Your task to perform on an android device: open app "Instagram" (install if not already installed) and go to login screen Image 0: 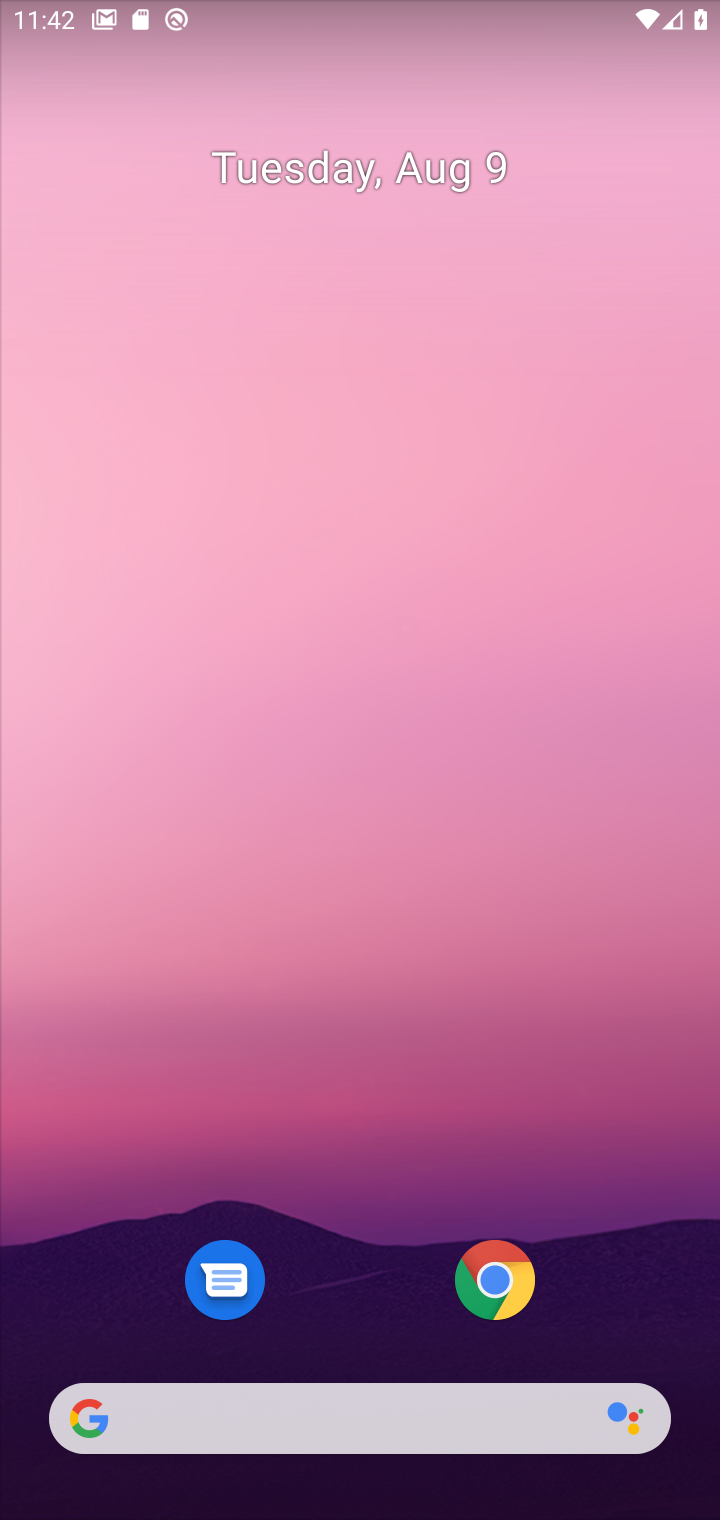
Step 0: drag from (354, 1197) to (488, 39)
Your task to perform on an android device: open app "Instagram" (install if not already installed) and go to login screen Image 1: 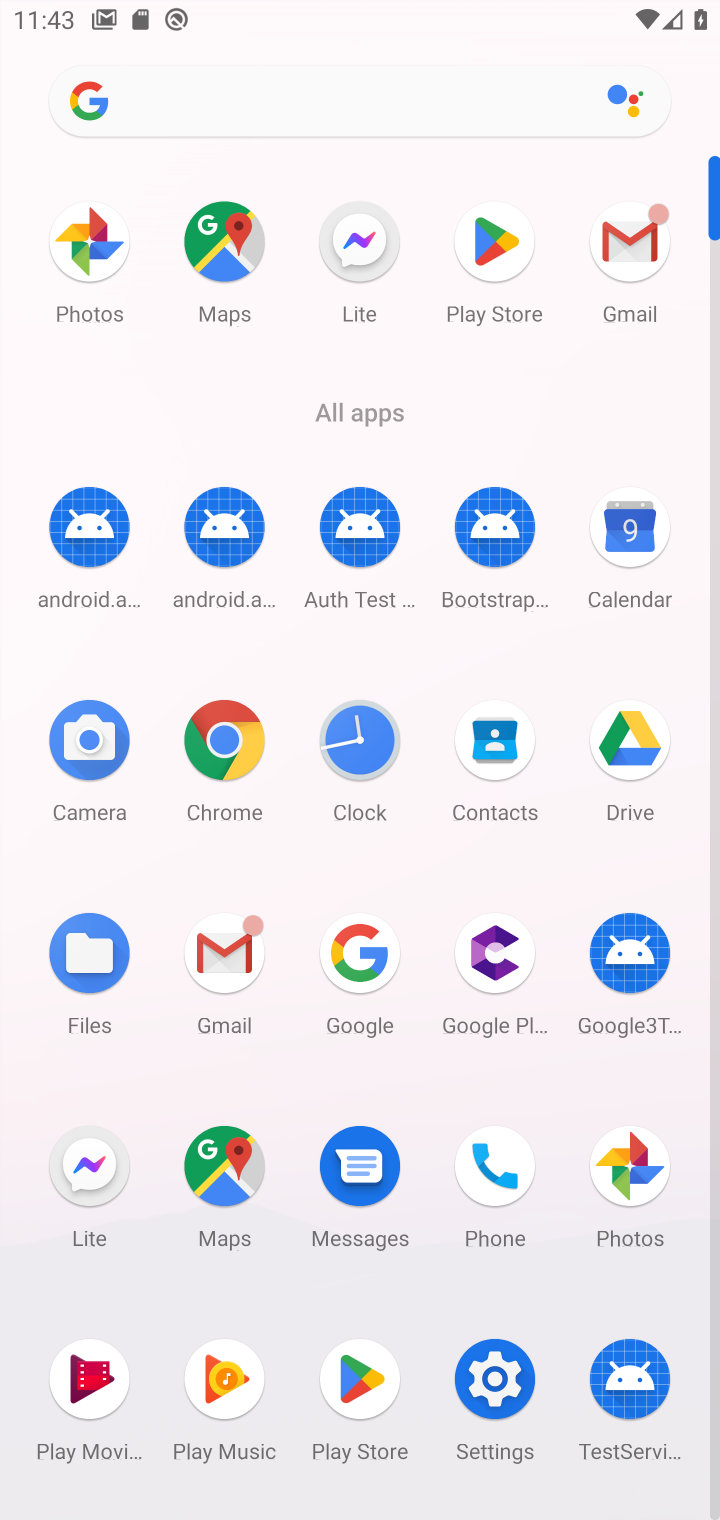
Step 1: click (500, 245)
Your task to perform on an android device: open app "Instagram" (install if not already installed) and go to login screen Image 2: 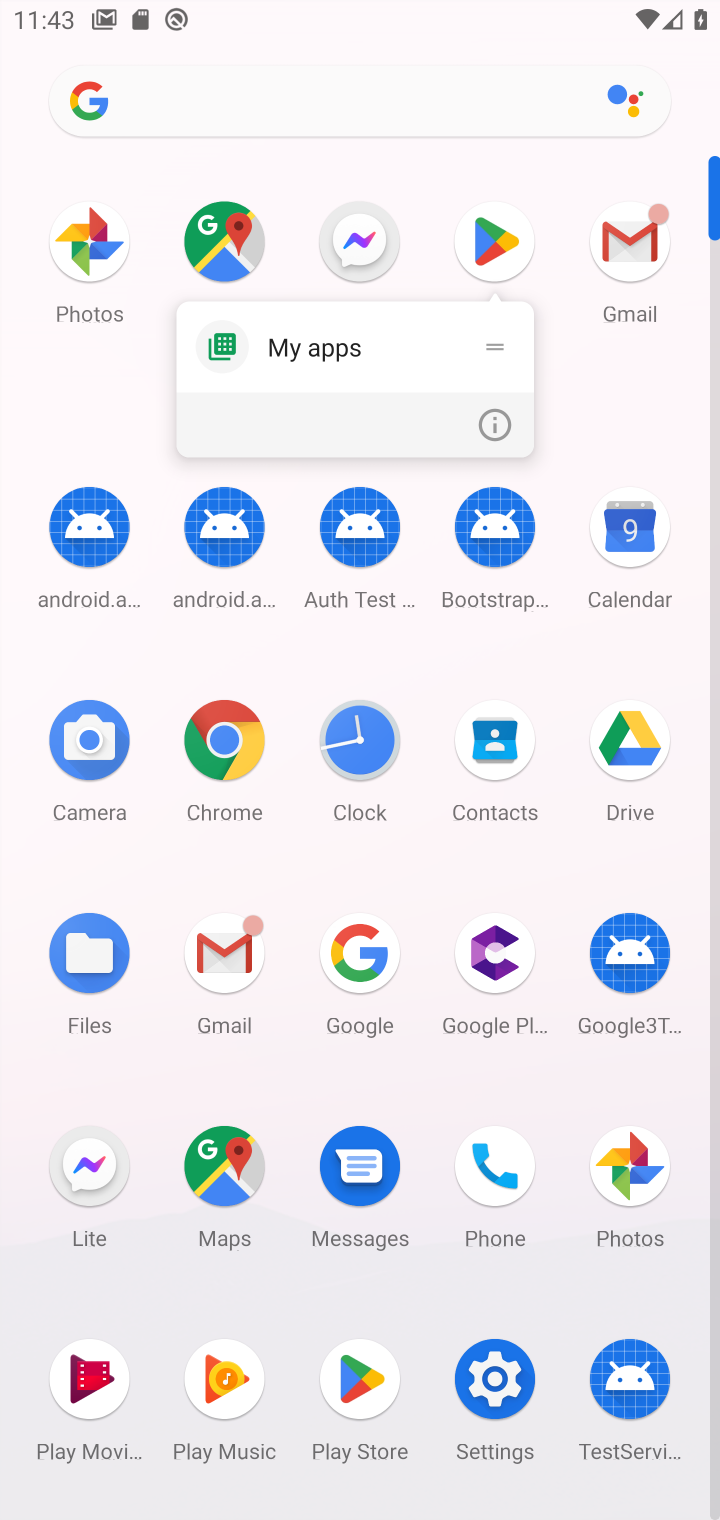
Step 2: click (493, 234)
Your task to perform on an android device: open app "Instagram" (install if not already installed) and go to login screen Image 3: 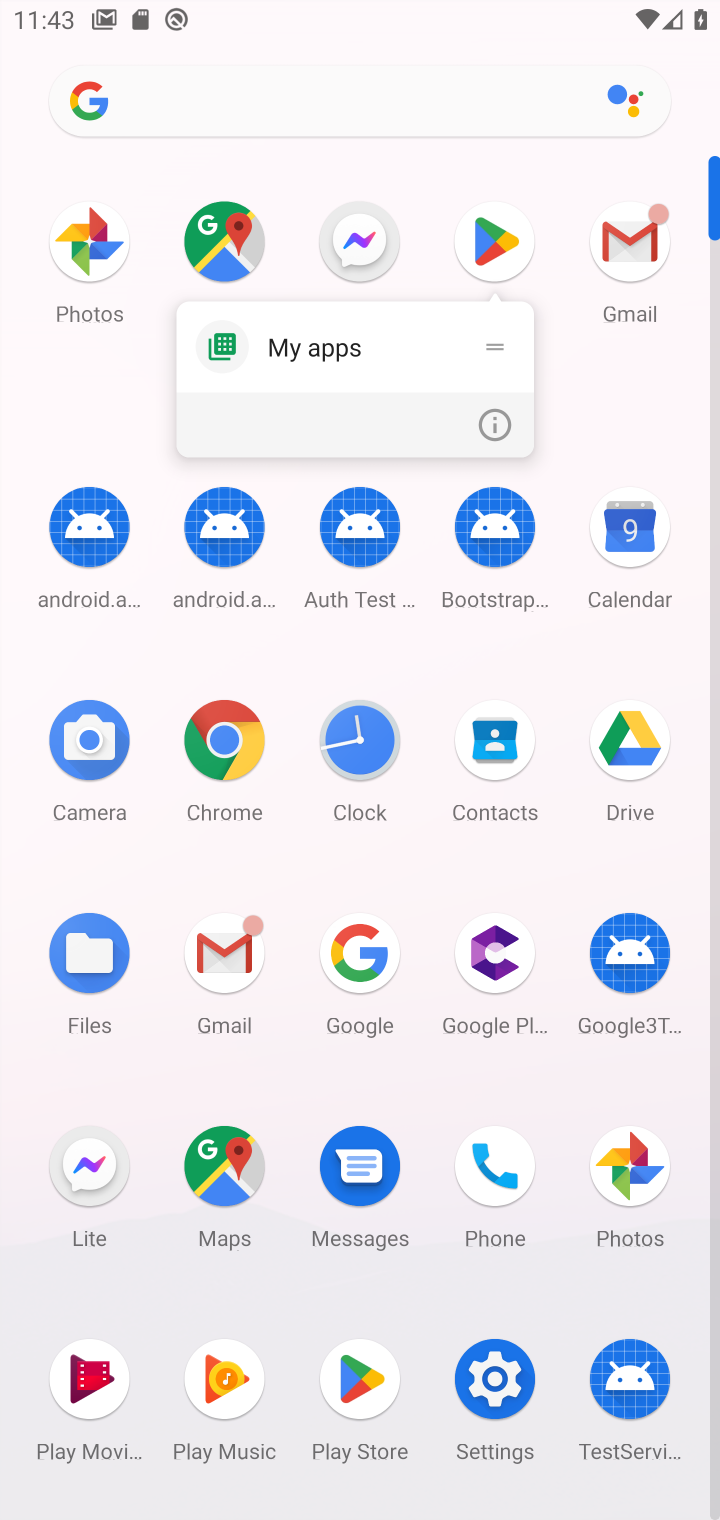
Step 3: click (493, 234)
Your task to perform on an android device: open app "Instagram" (install if not already installed) and go to login screen Image 4: 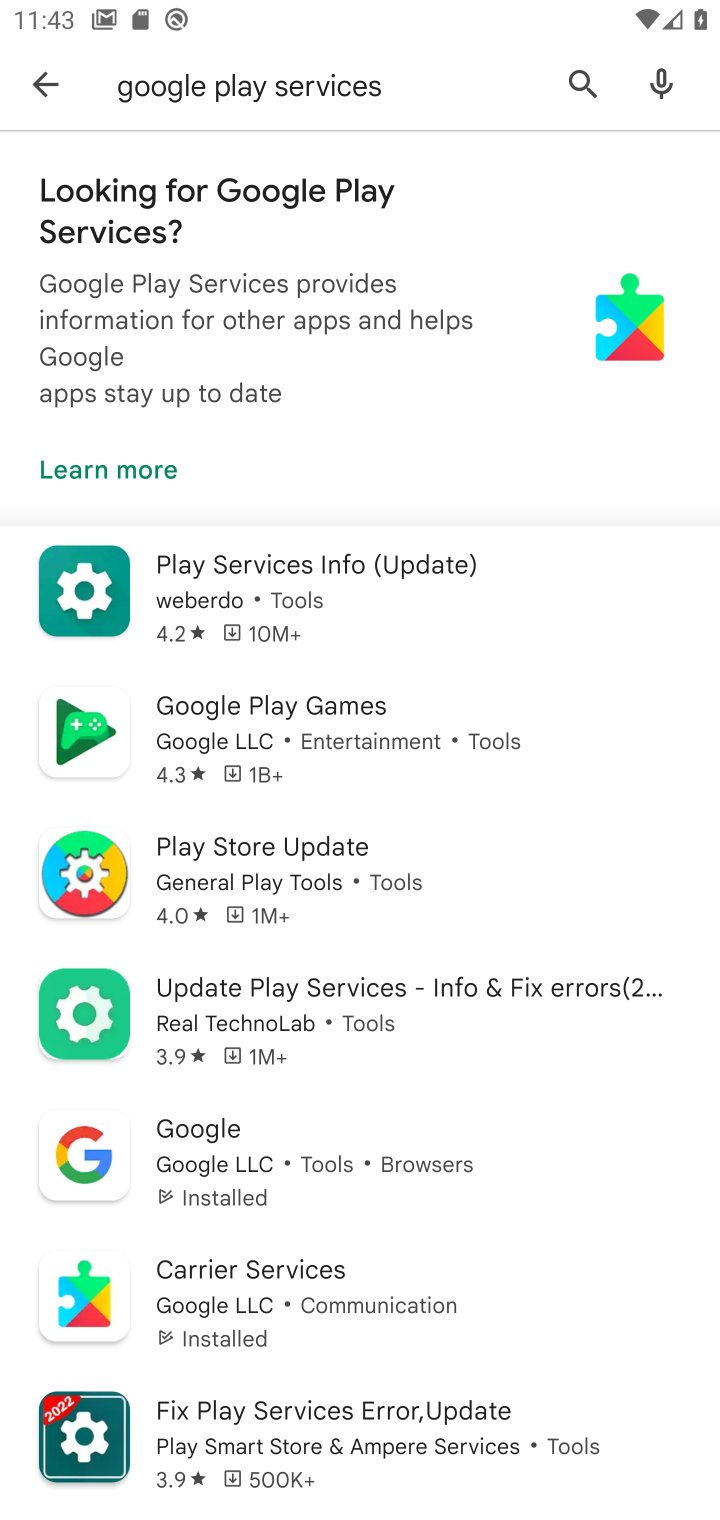
Step 4: click (564, 81)
Your task to perform on an android device: open app "Instagram" (install if not already installed) and go to login screen Image 5: 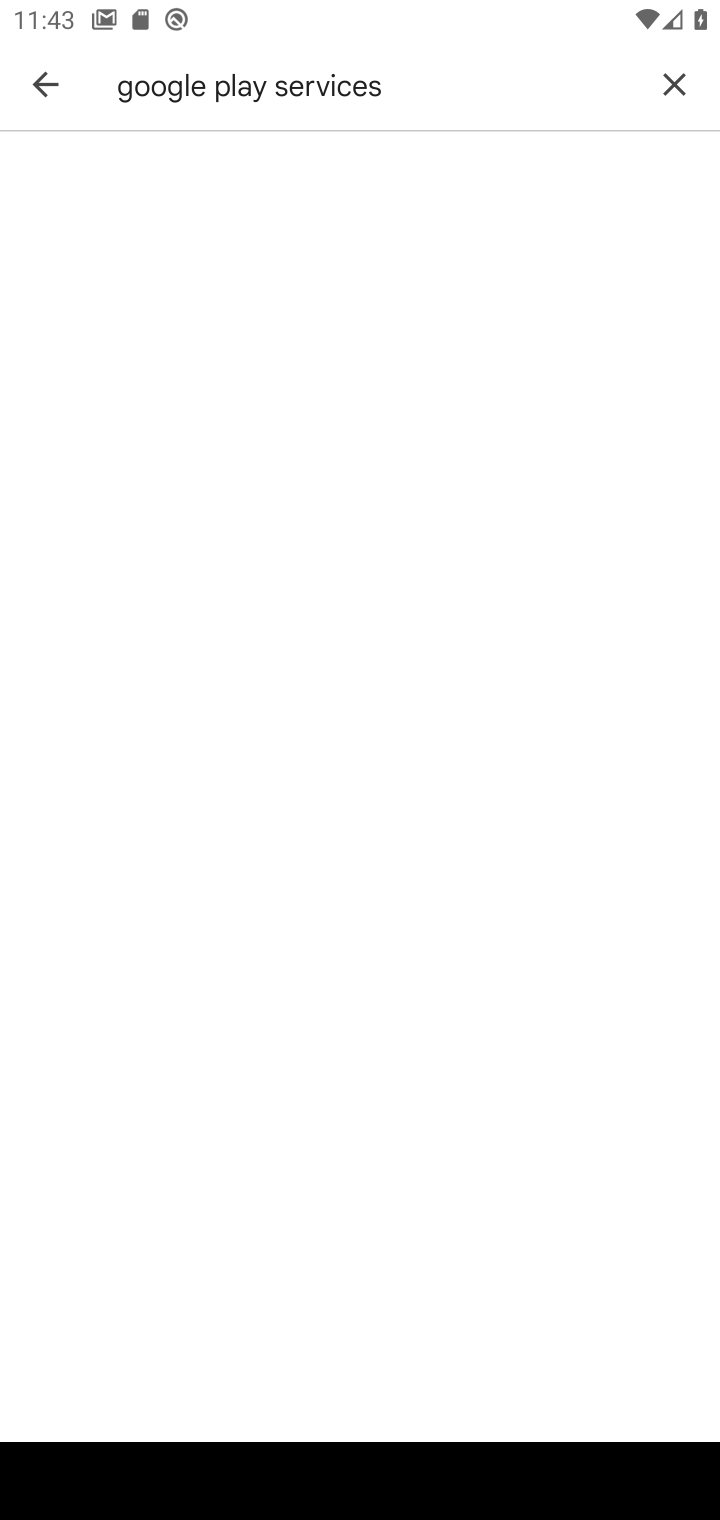
Step 5: click (668, 72)
Your task to perform on an android device: open app "Instagram" (install if not already installed) and go to login screen Image 6: 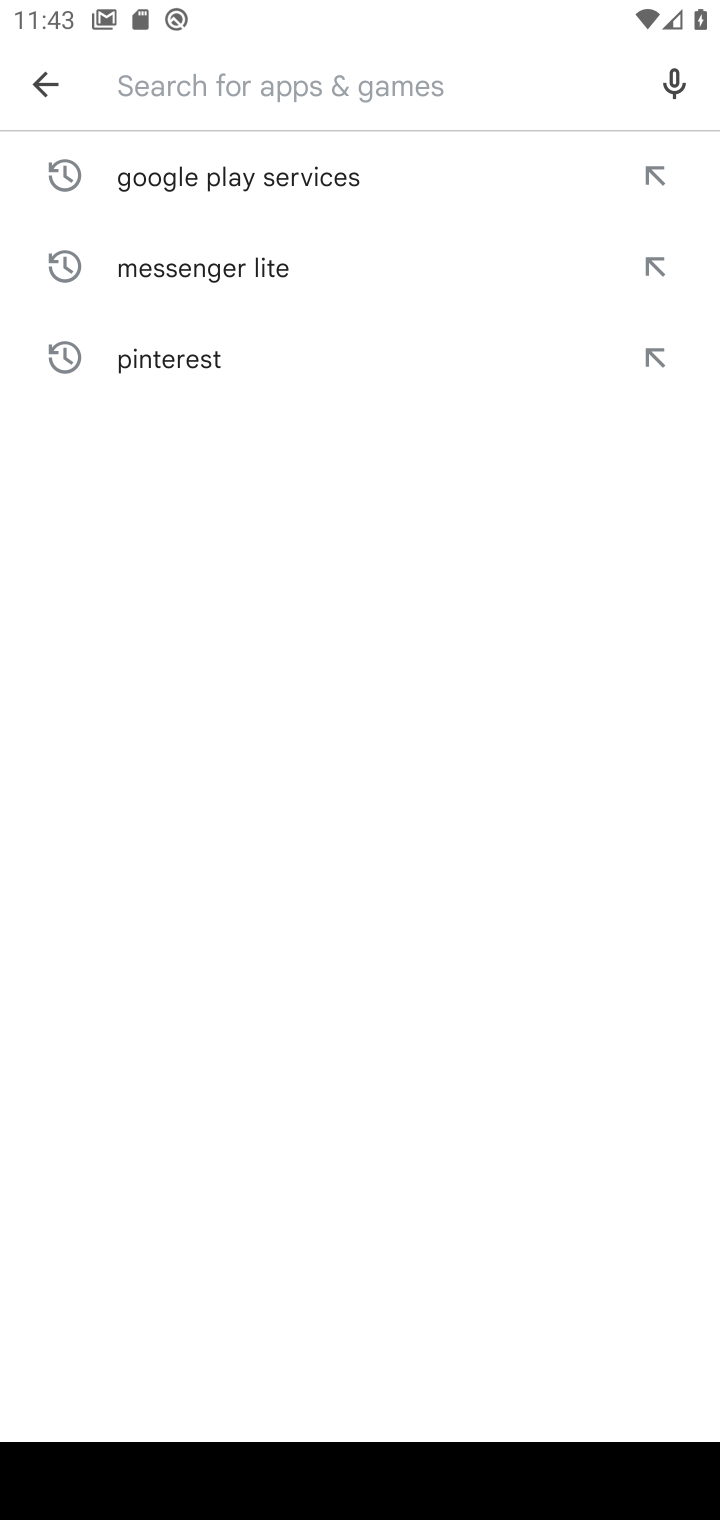
Step 6: type "Instagram"
Your task to perform on an android device: open app "Instagram" (install if not already installed) and go to login screen Image 7: 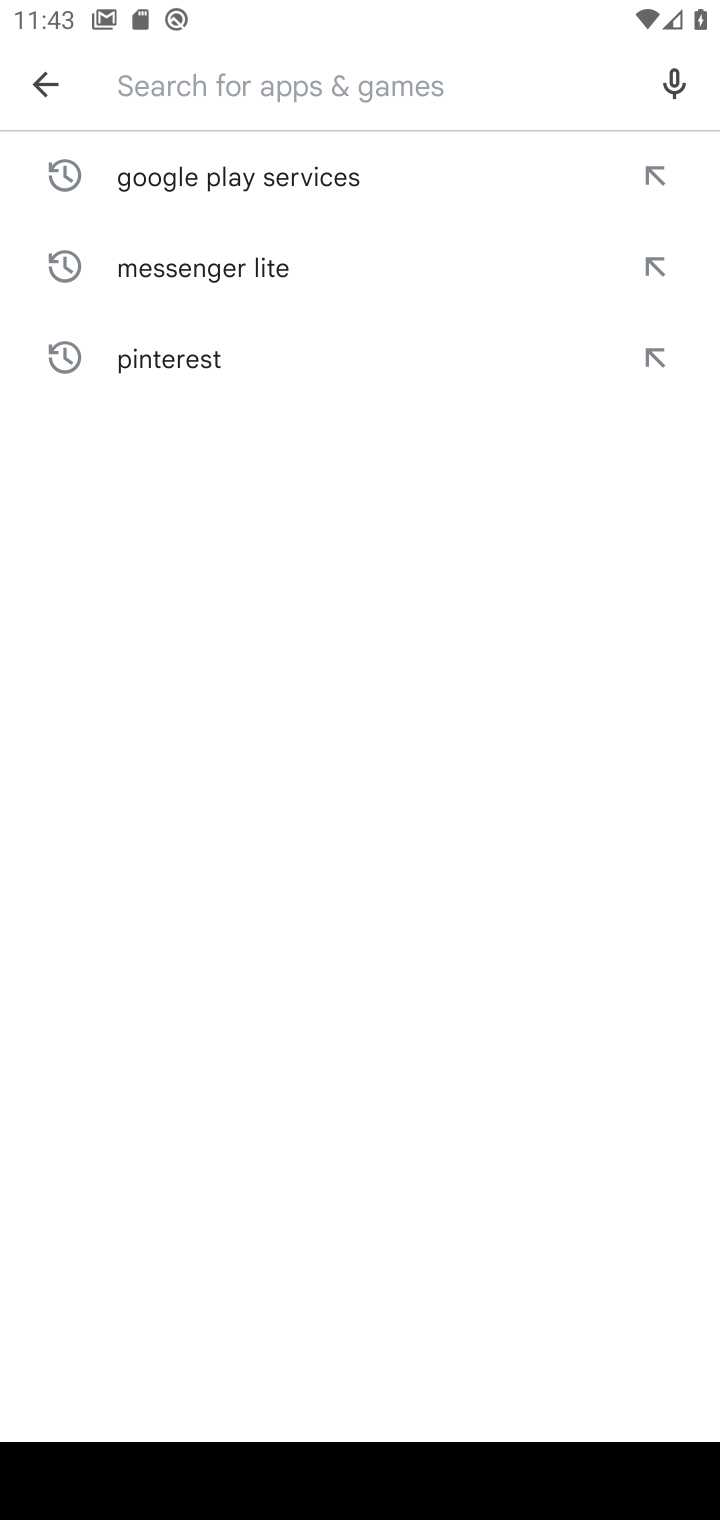
Step 7: click (309, 988)
Your task to perform on an android device: open app "Instagram" (install if not already installed) and go to login screen Image 8: 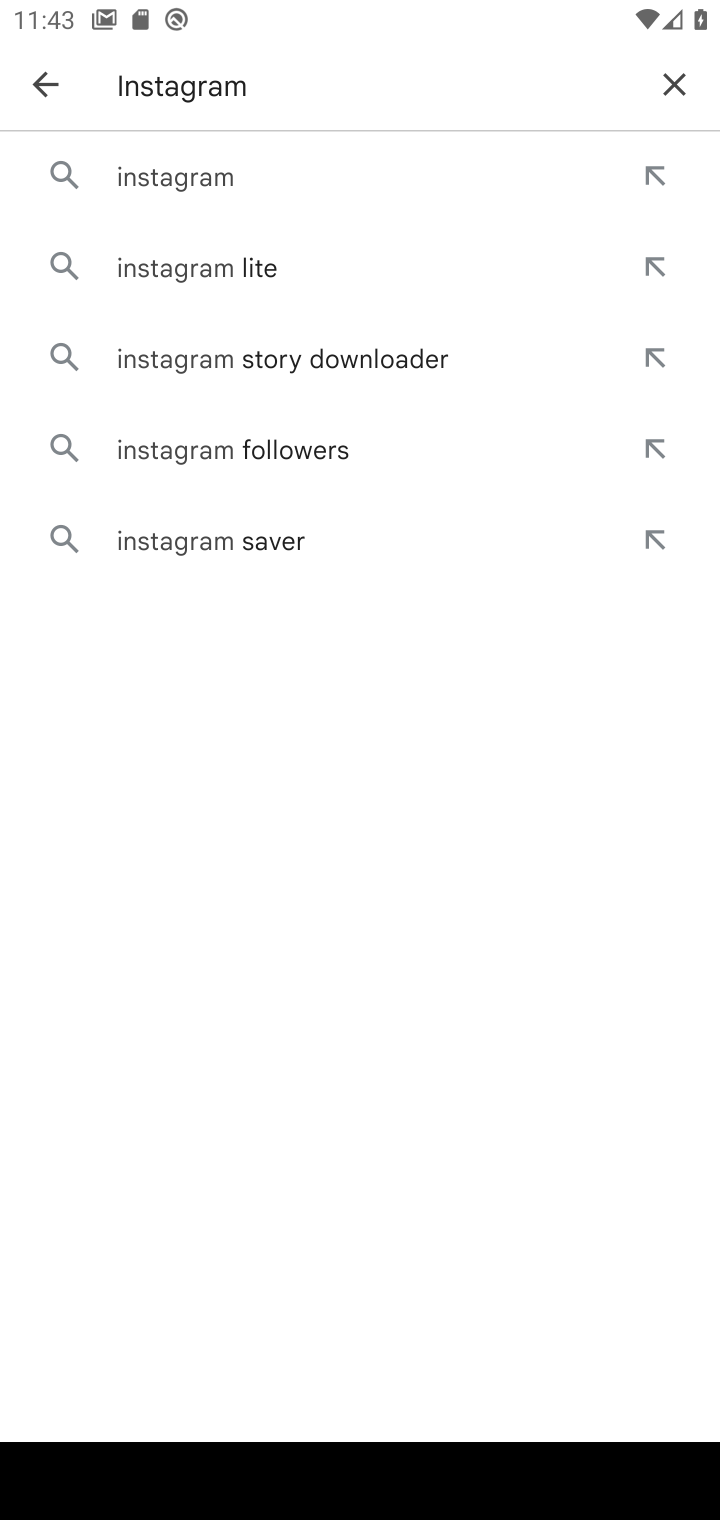
Step 8: click (228, 163)
Your task to perform on an android device: open app "Instagram" (install if not already installed) and go to login screen Image 9: 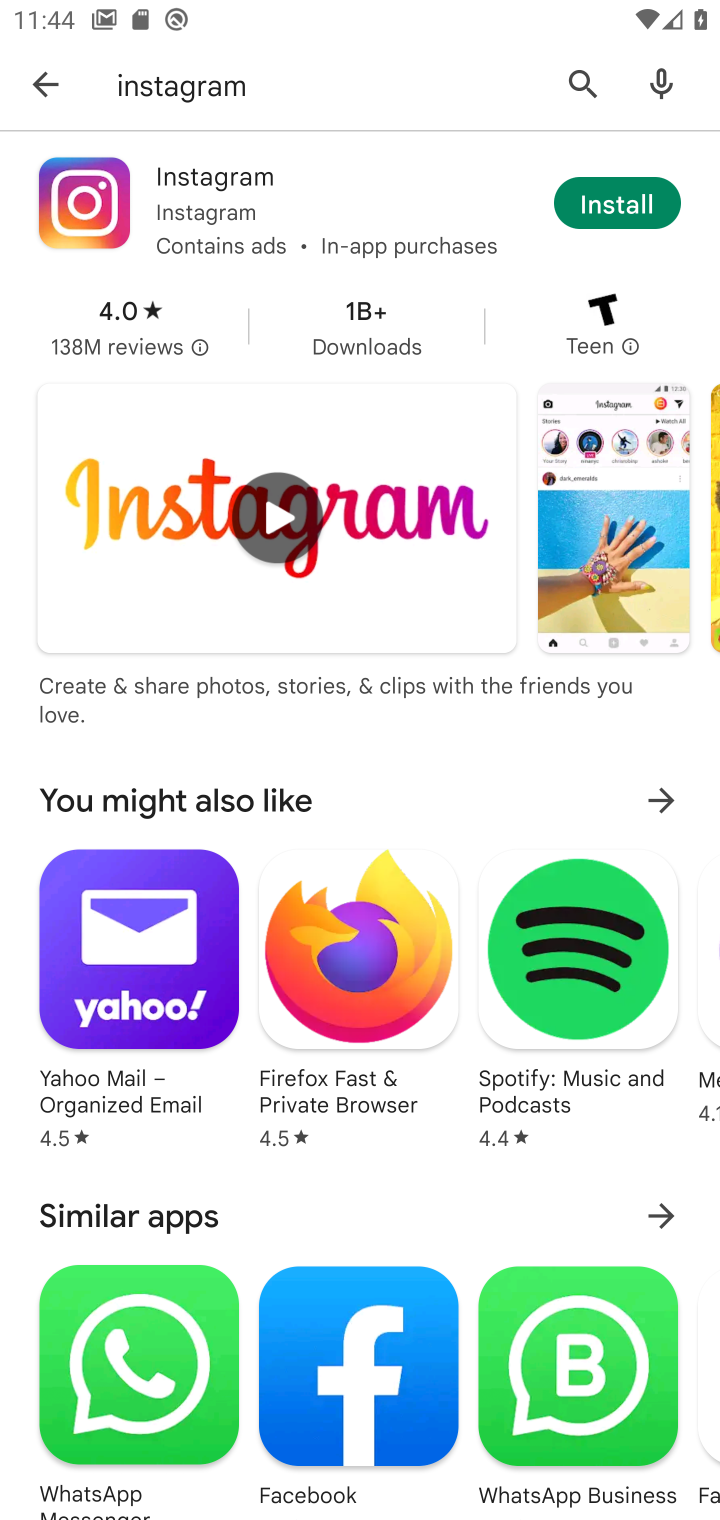
Step 9: click (655, 198)
Your task to perform on an android device: open app "Instagram" (install if not already installed) and go to login screen Image 10: 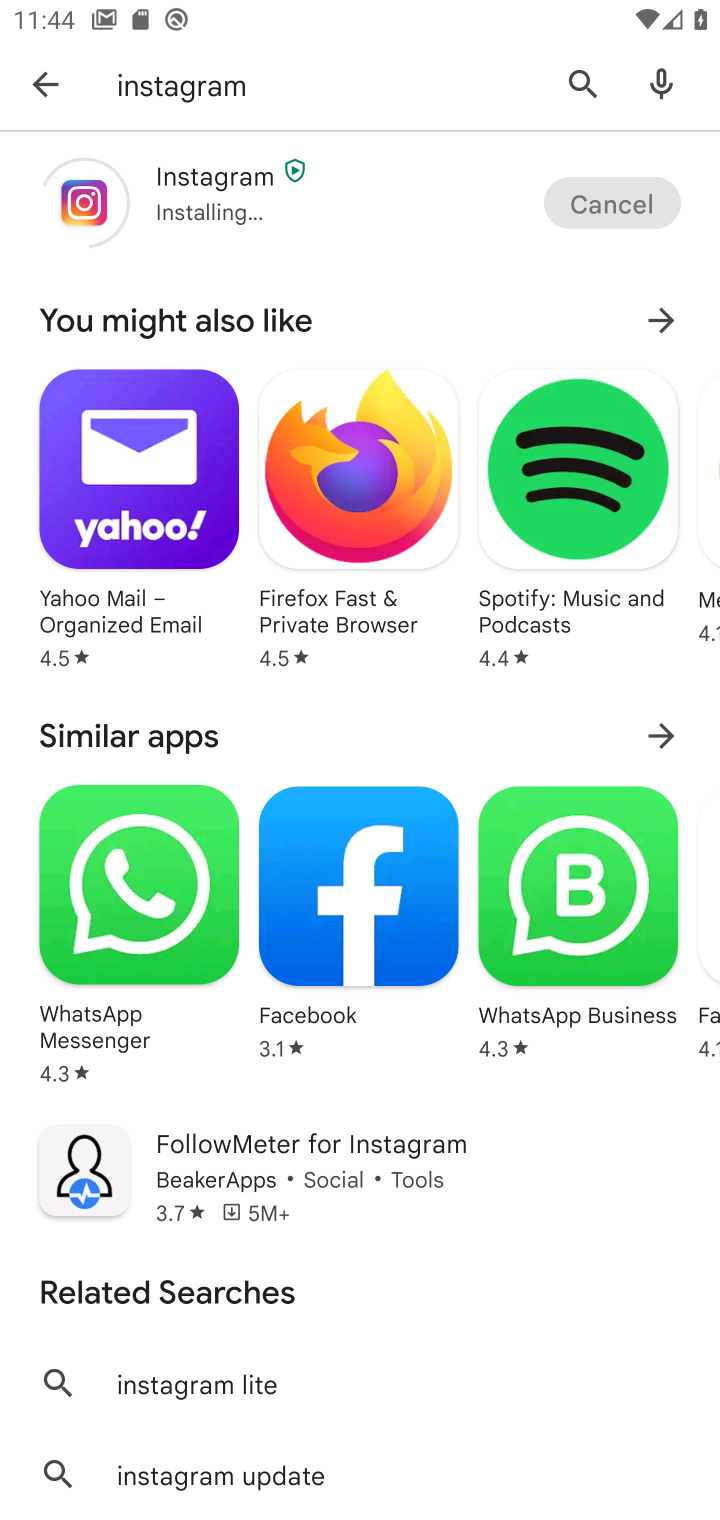
Step 10: press back button
Your task to perform on an android device: open app "Instagram" (install if not already installed) and go to login screen Image 11: 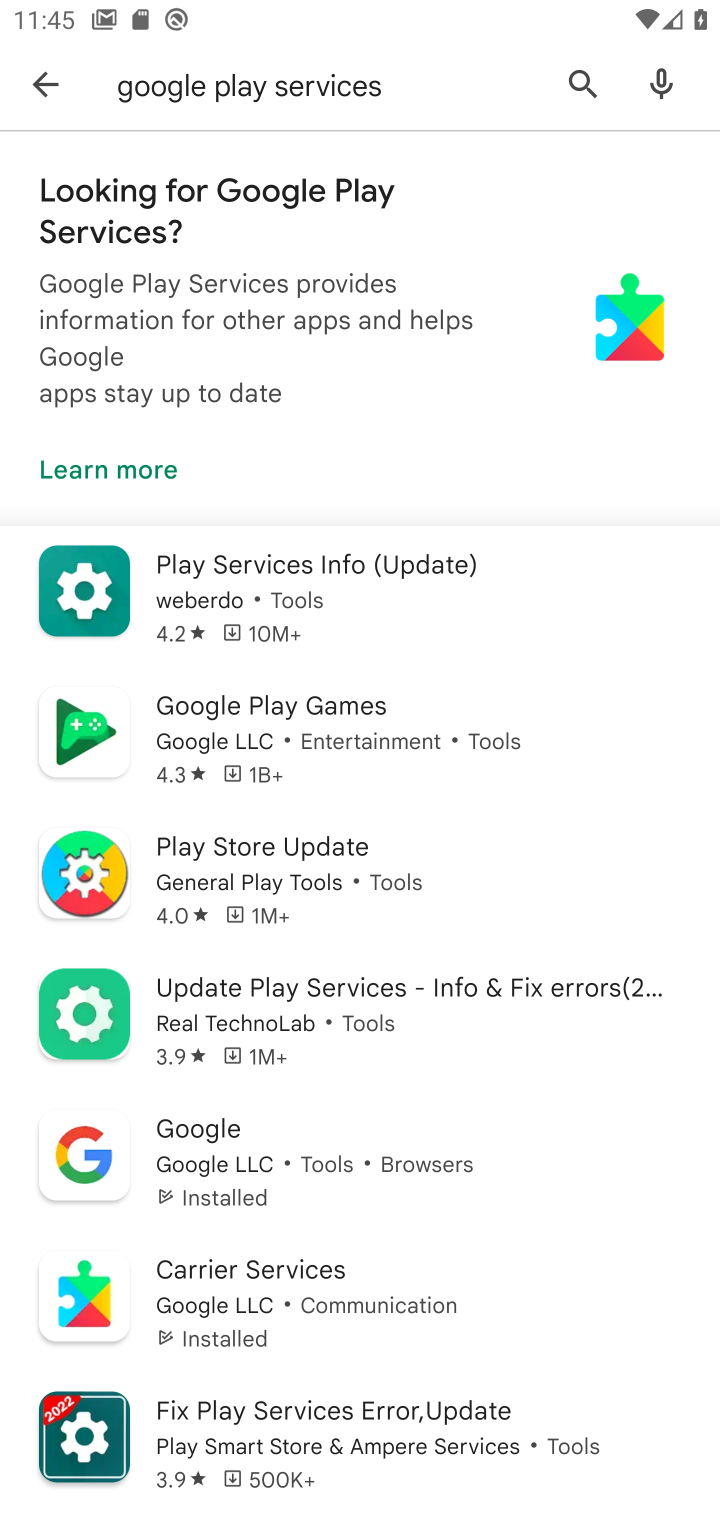
Step 11: click (573, 74)
Your task to perform on an android device: open app "Instagram" (install if not already installed) and go to login screen Image 12: 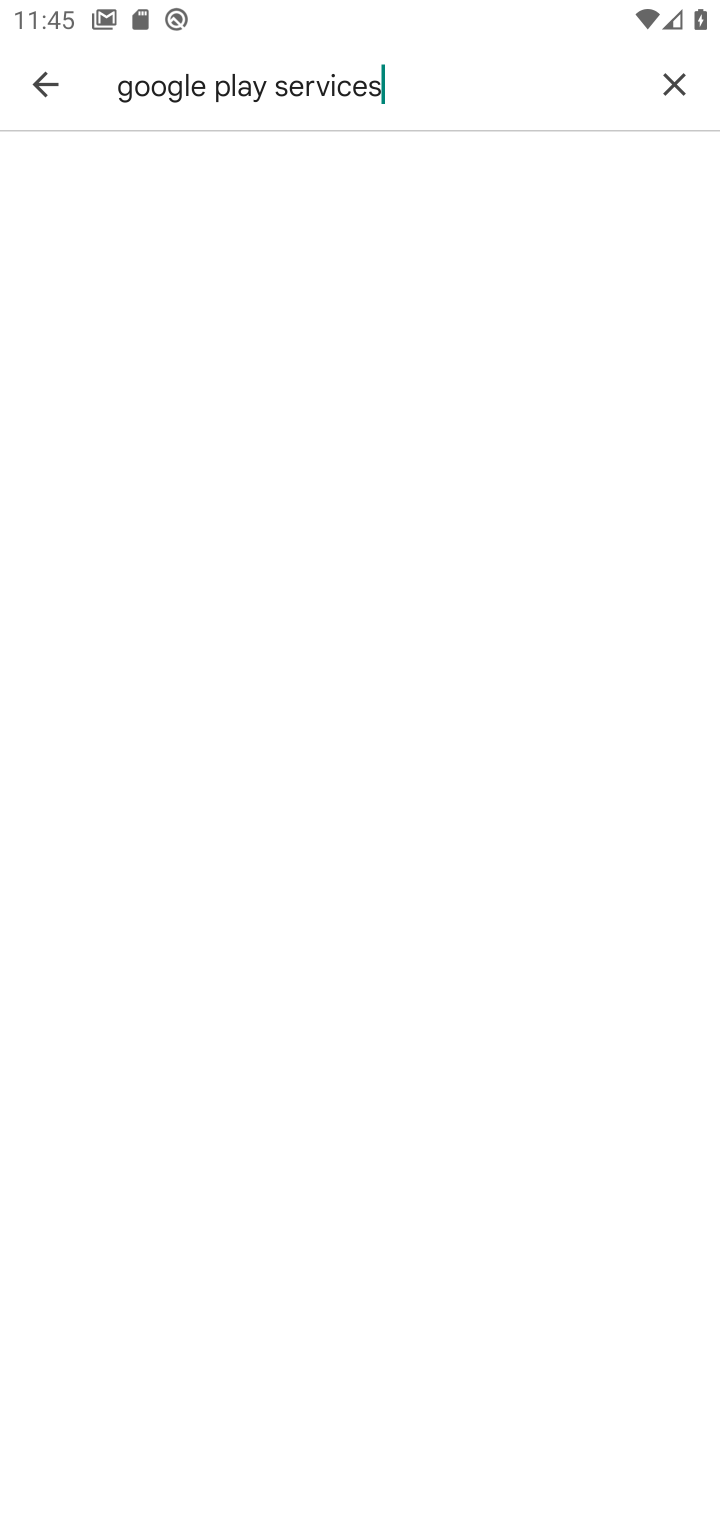
Step 12: click (670, 68)
Your task to perform on an android device: open app "Instagram" (install if not already installed) and go to login screen Image 13: 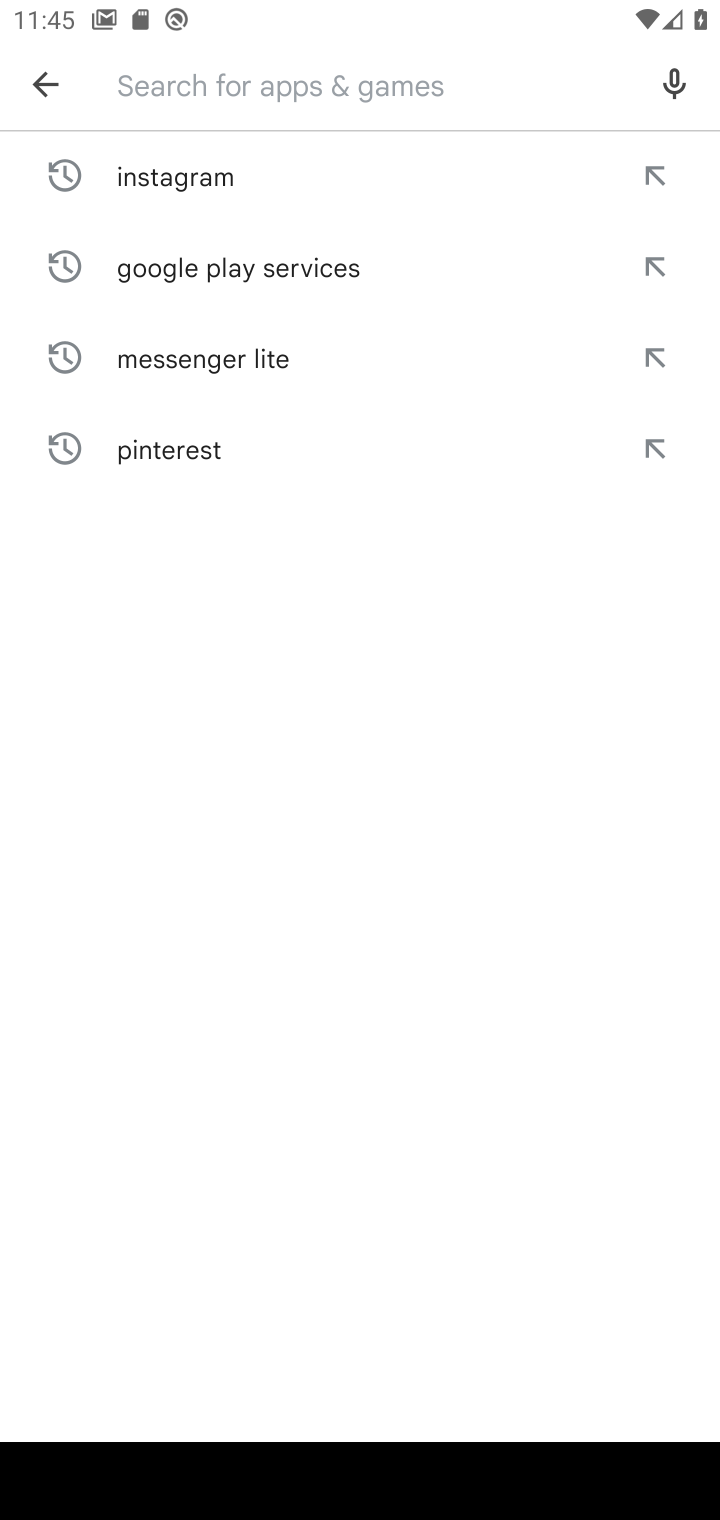
Step 13: click (210, 194)
Your task to perform on an android device: open app "Instagram" (install if not already installed) and go to login screen Image 14: 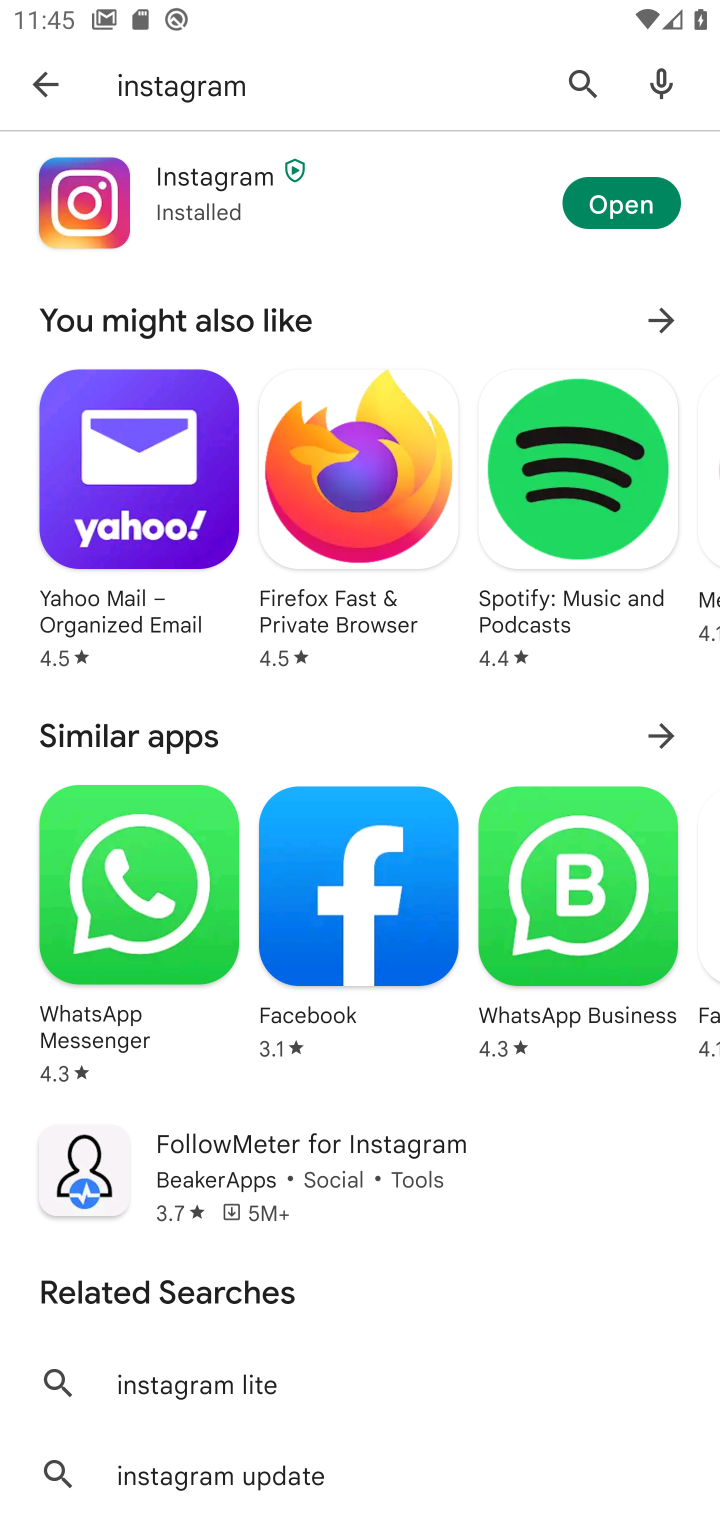
Step 14: click (625, 194)
Your task to perform on an android device: open app "Instagram" (install if not already installed) and go to login screen Image 15: 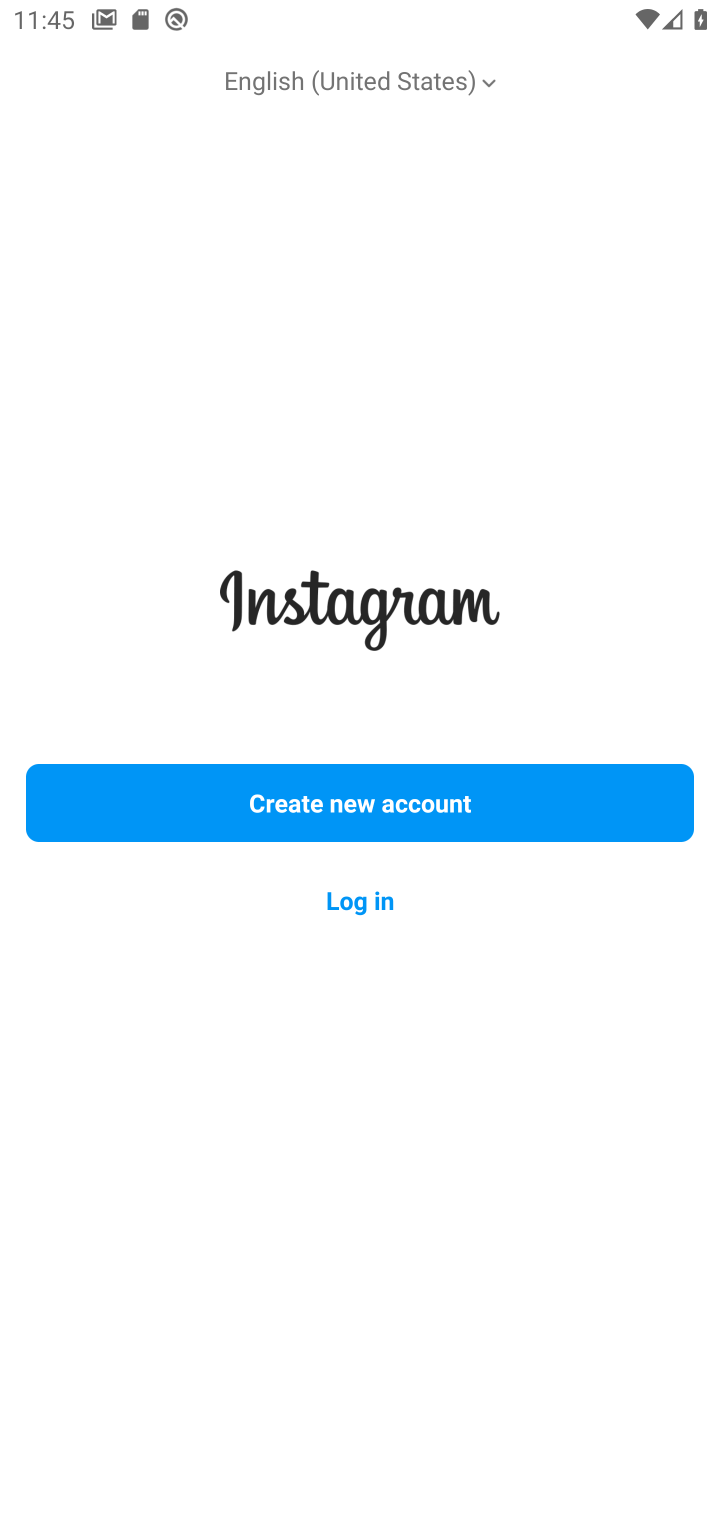
Step 15: task complete